Your task to perform on an android device: Go to ESPN.com Image 0: 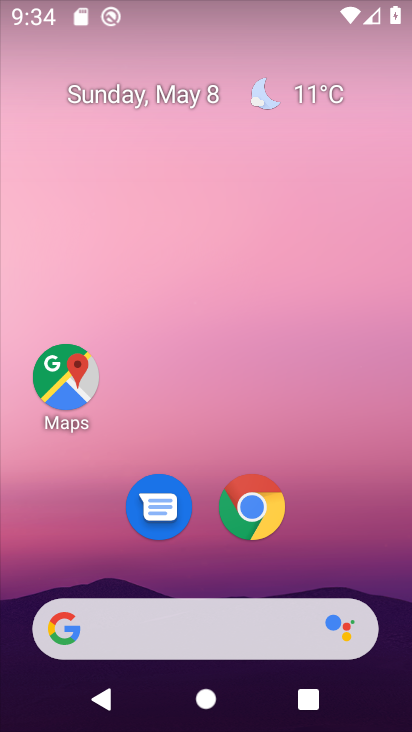
Step 0: drag from (333, 386) to (331, 5)
Your task to perform on an android device: Go to ESPN.com Image 1: 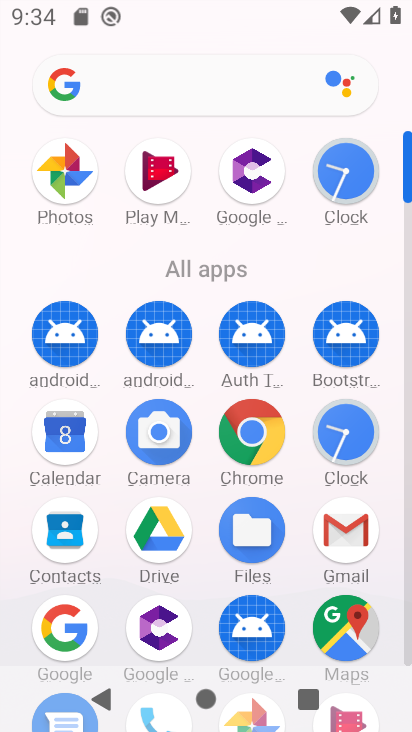
Step 1: click (259, 430)
Your task to perform on an android device: Go to ESPN.com Image 2: 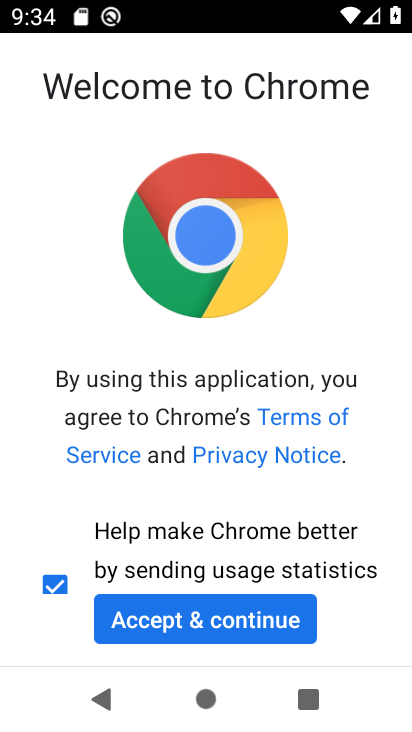
Step 2: click (231, 636)
Your task to perform on an android device: Go to ESPN.com Image 3: 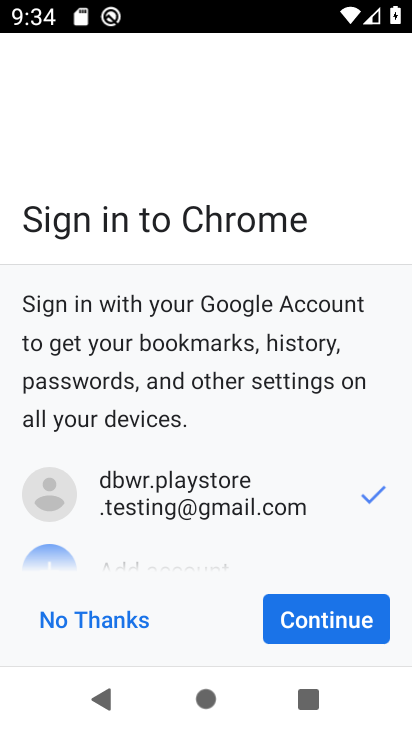
Step 3: click (304, 626)
Your task to perform on an android device: Go to ESPN.com Image 4: 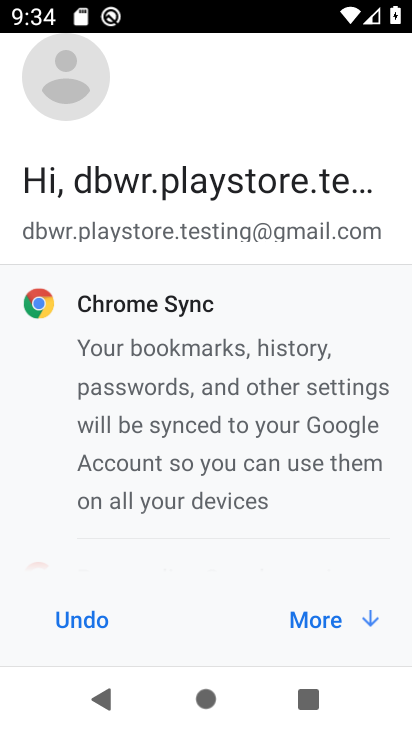
Step 4: click (350, 622)
Your task to perform on an android device: Go to ESPN.com Image 5: 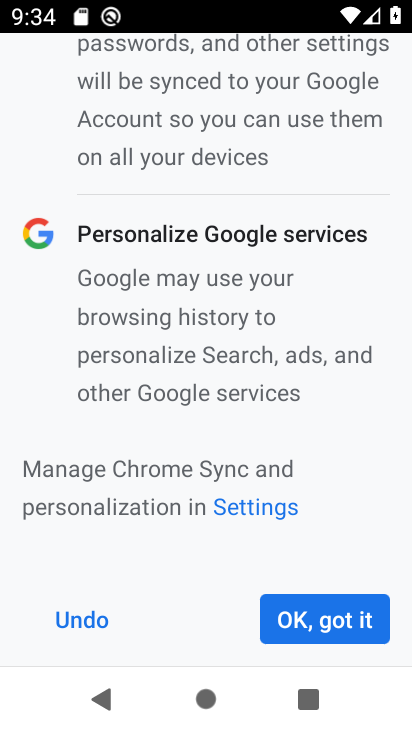
Step 5: click (350, 621)
Your task to perform on an android device: Go to ESPN.com Image 6: 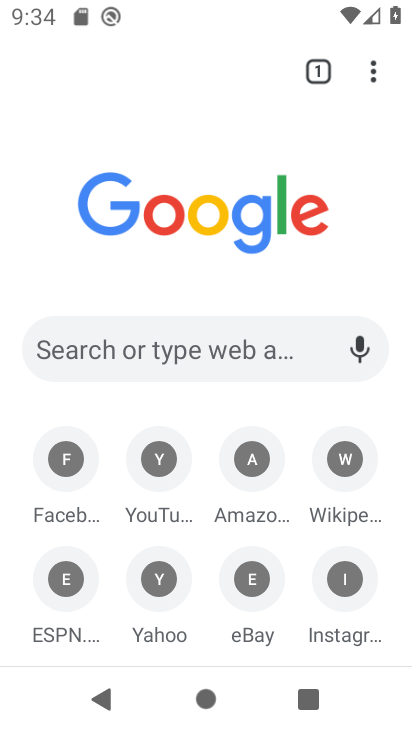
Step 6: click (188, 70)
Your task to perform on an android device: Go to ESPN.com Image 7: 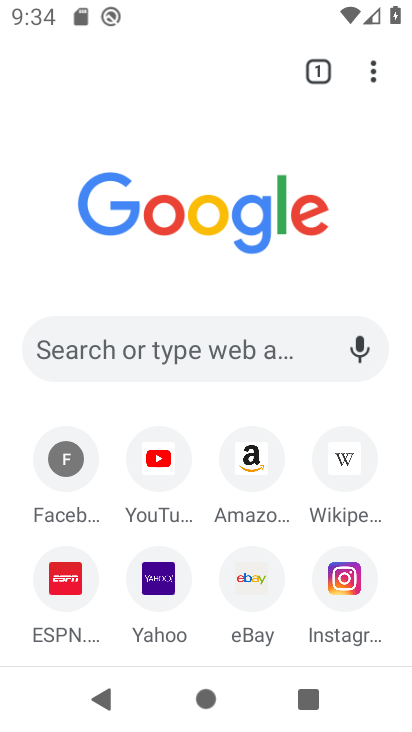
Step 7: click (222, 360)
Your task to perform on an android device: Go to ESPN.com Image 8: 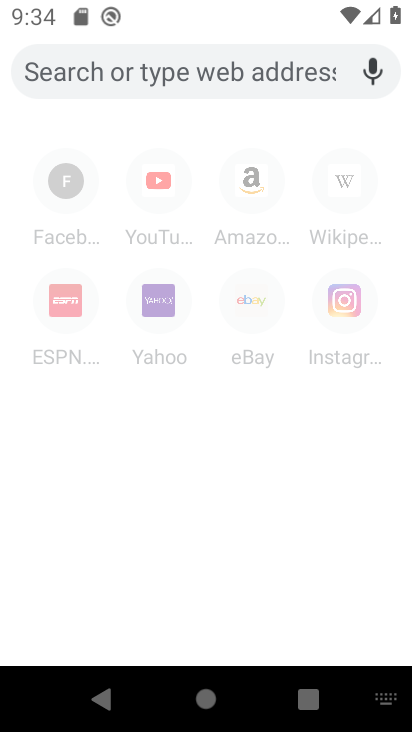
Step 8: click (66, 309)
Your task to perform on an android device: Go to ESPN.com Image 9: 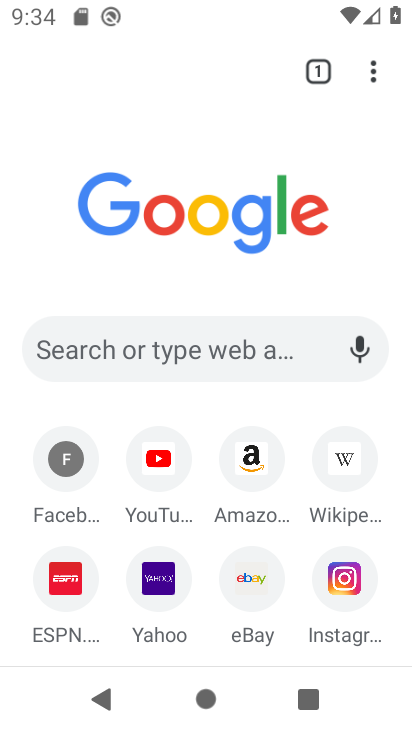
Step 9: click (57, 584)
Your task to perform on an android device: Go to ESPN.com Image 10: 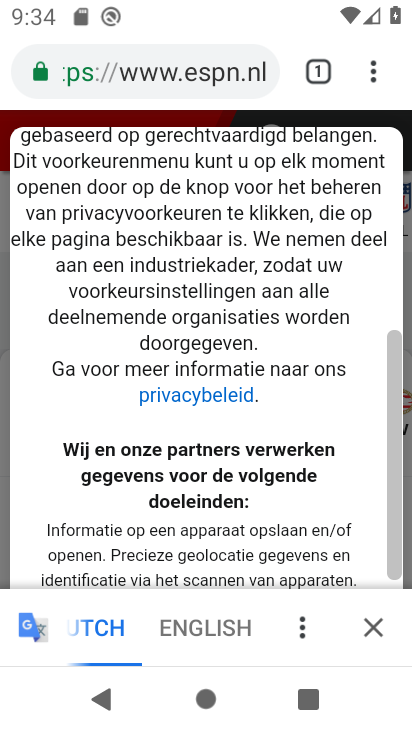
Step 10: task complete